Your task to perform on an android device: toggle sleep mode Image 0: 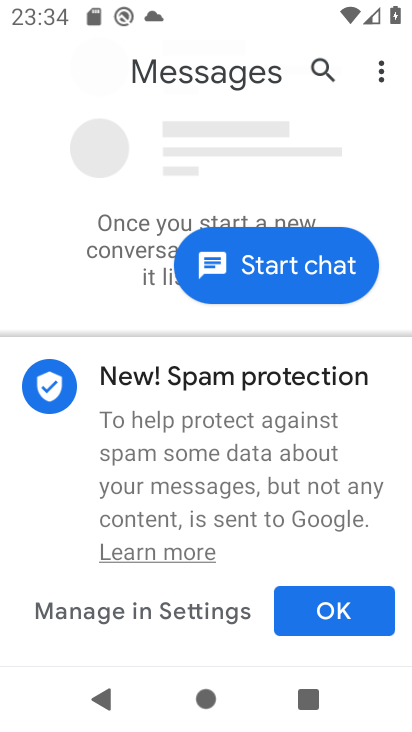
Step 0: press home button
Your task to perform on an android device: toggle sleep mode Image 1: 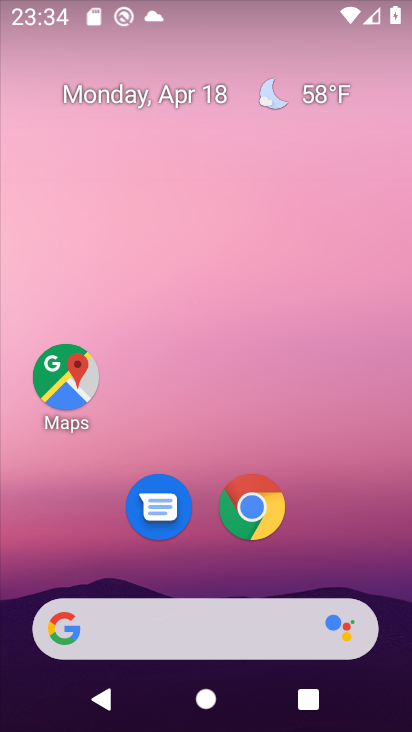
Step 1: drag from (275, 526) to (315, 1)
Your task to perform on an android device: toggle sleep mode Image 2: 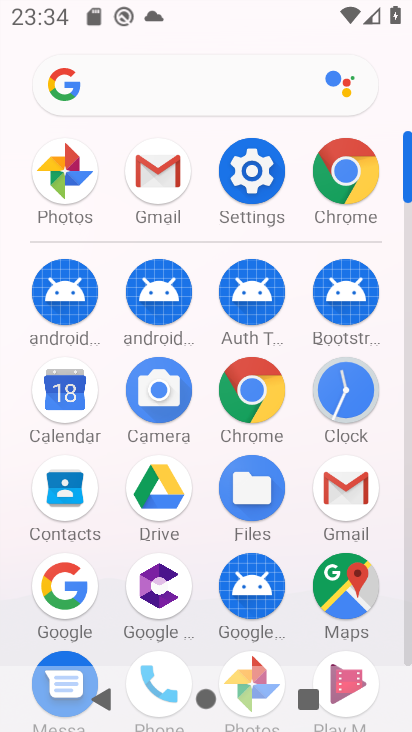
Step 2: click (250, 198)
Your task to perform on an android device: toggle sleep mode Image 3: 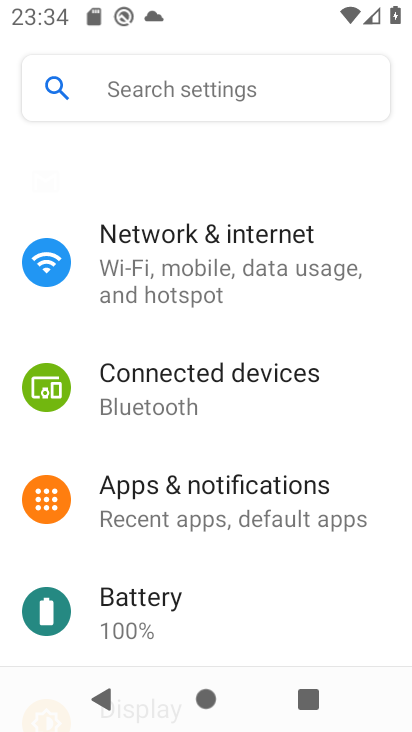
Step 3: click (251, 169)
Your task to perform on an android device: toggle sleep mode Image 4: 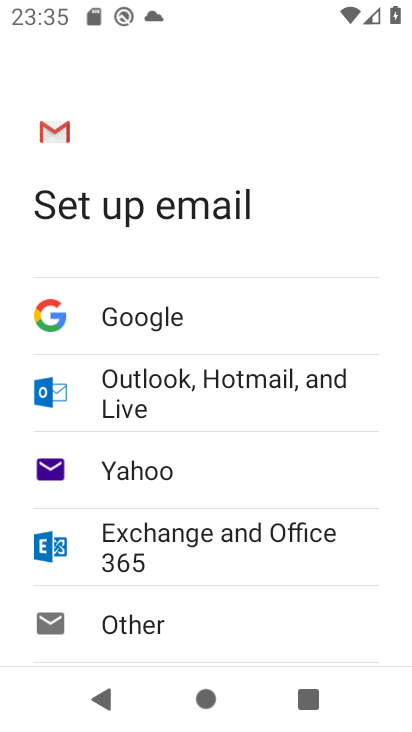
Step 4: task complete